Your task to perform on an android device: open the mobile data screen to see how much data has been used Image 0: 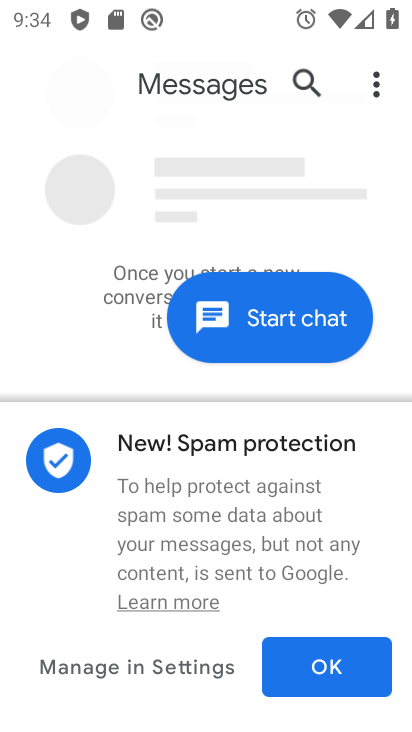
Step 0: press home button
Your task to perform on an android device: open the mobile data screen to see how much data has been used Image 1: 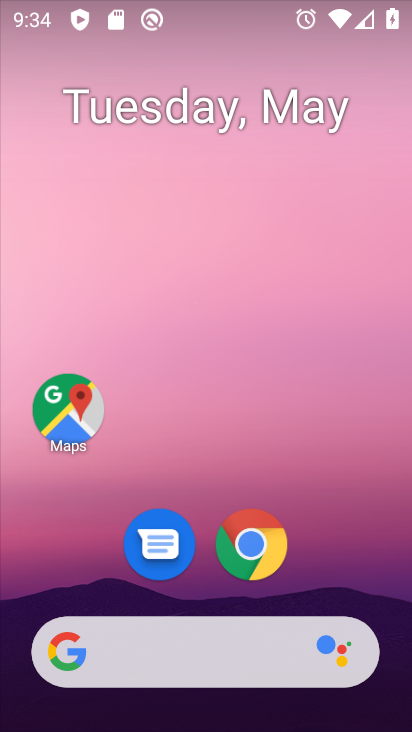
Step 1: drag from (364, 469) to (336, 170)
Your task to perform on an android device: open the mobile data screen to see how much data has been used Image 2: 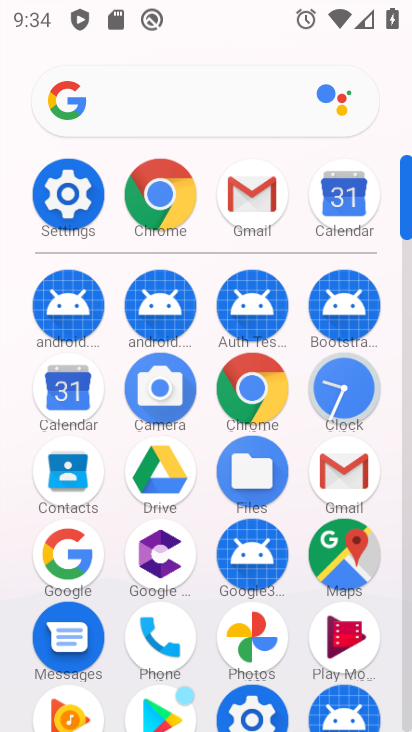
Step 2: click (90, 199)
Your task to perform on an android device: open the mobile data screen to see how much data has been used Image 3: 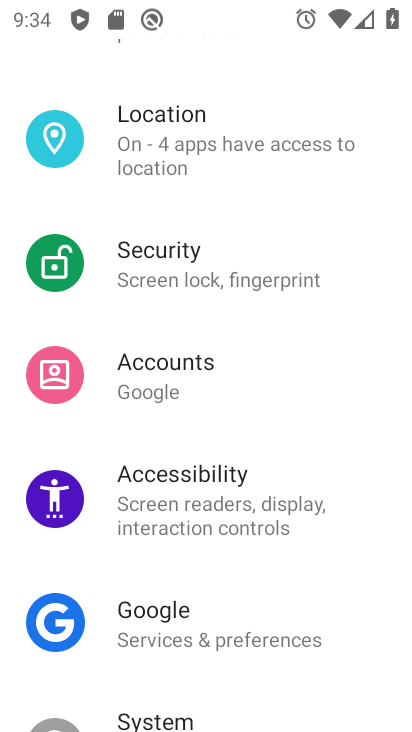
Step 3: drag from (231, 219) to (275, 678)
Your task to perform on an android device: open the mobile data screen to see how much data has been used Image 4: 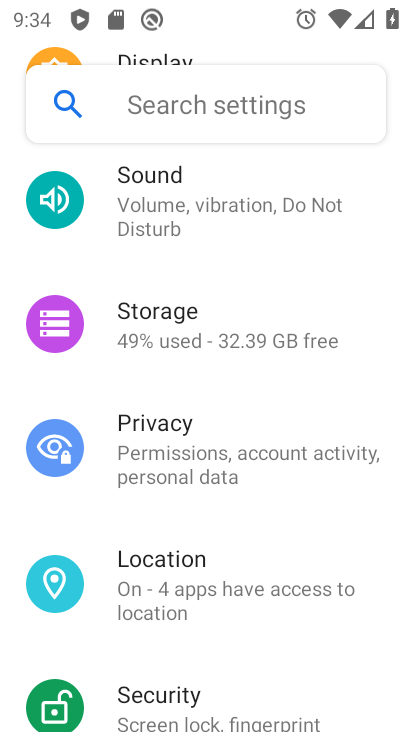
Step 4: drag from (236, 262) to (225, 695)
Your task to perform on an android device: open the mobile data screen to see how much data has been used Image 5: 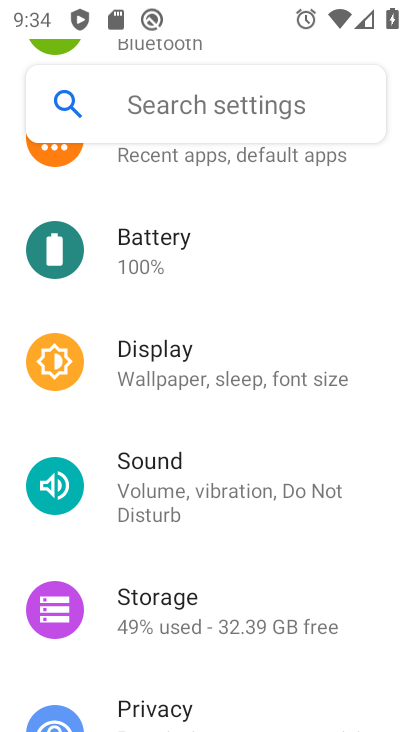
Step 5: drag from (245, 241) to (284, 644)
Your task to perform on an android device: open the mobile data screen to see how much data has been used Image 6: 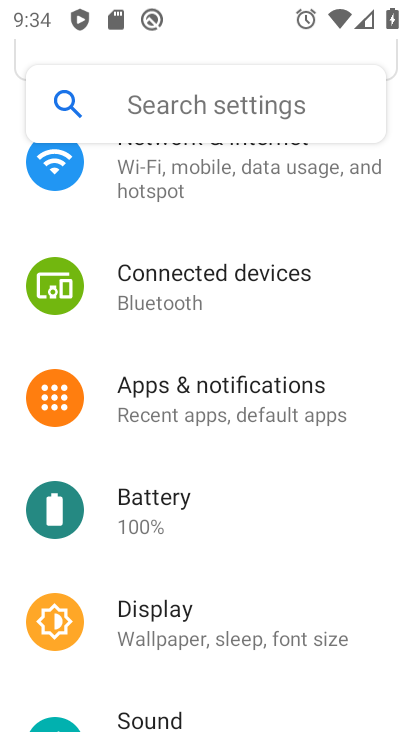
Step 6: drag from (238, 235) to (242, 639)
Your task to perform on an android device: open the mobile data screen to see how much data has been used Image 7: 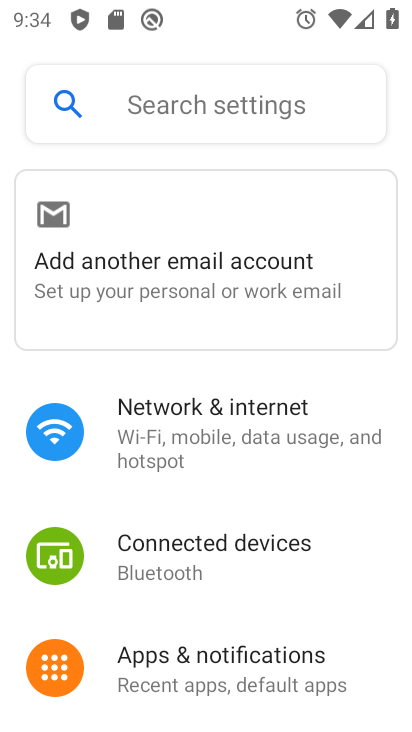
Step 7: click (164, 455)
Your task to perform on an android device: open the mobile data screen to see how much data has been used Image 8: 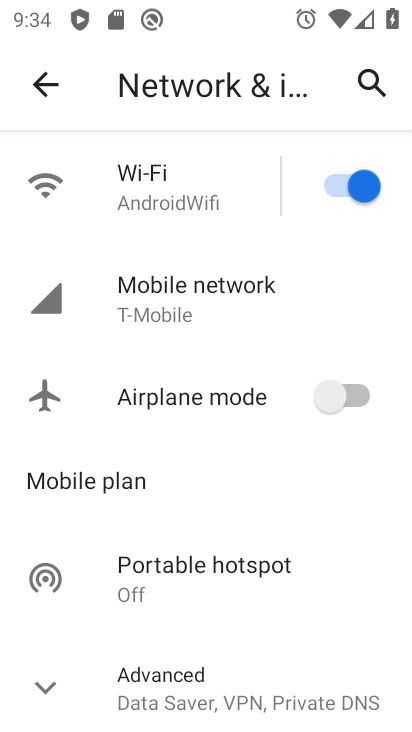
Step 8: click (213, 169)
Your task to perform on an android device: open the mobile data screen to see how much data has been used Image 9: 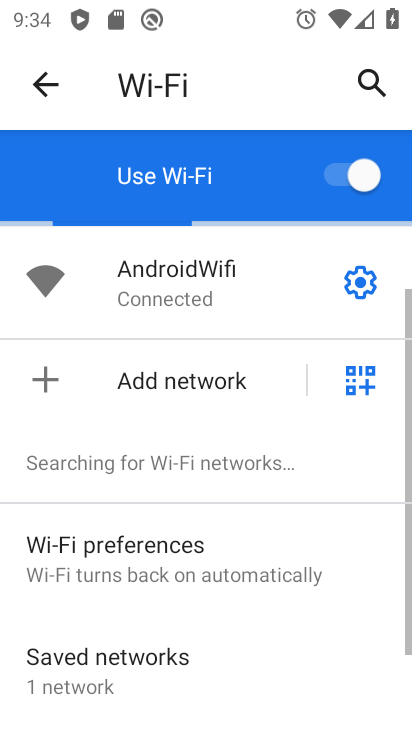
Step 9: click (22, 81)
Your task to perform on an android device: open the mobile data screen to see how much data has been used Image 10: 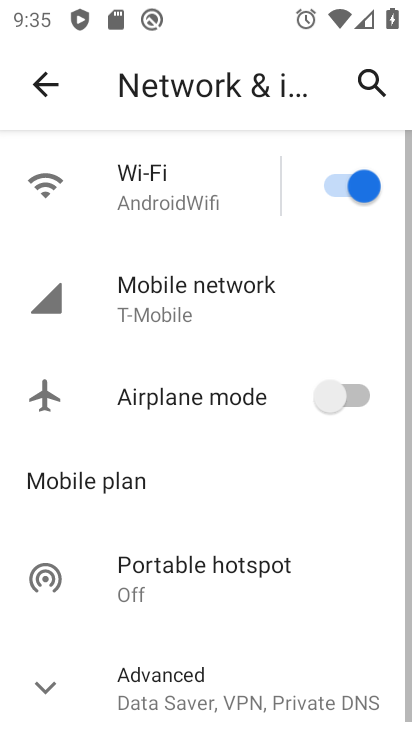
Step 10: click (152, 316)
Your task to perform on an android device: open the mobile data screen to see how much data has been used Image 11: 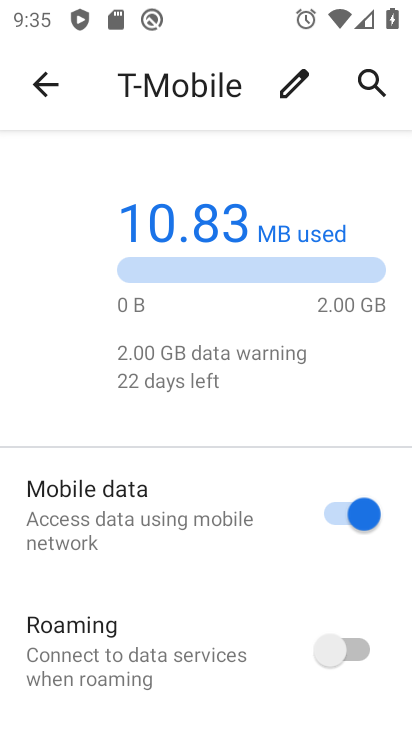
Step 11: task complete